Your task to perform on an android device: delete location history Image 0: 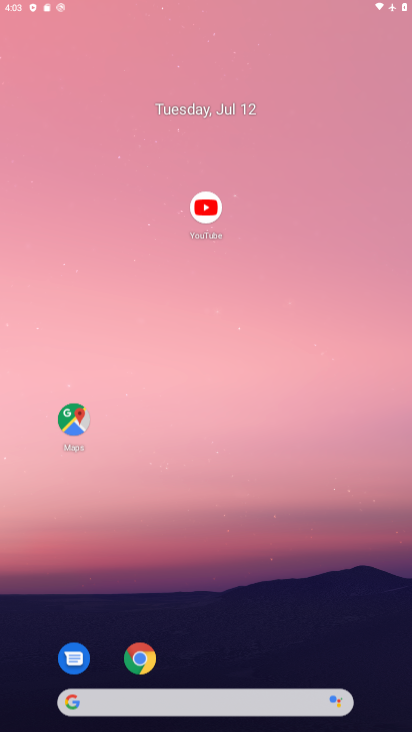
Step 0: click (131, 74)
Your task to perform on an android device: delete location history Image 1: 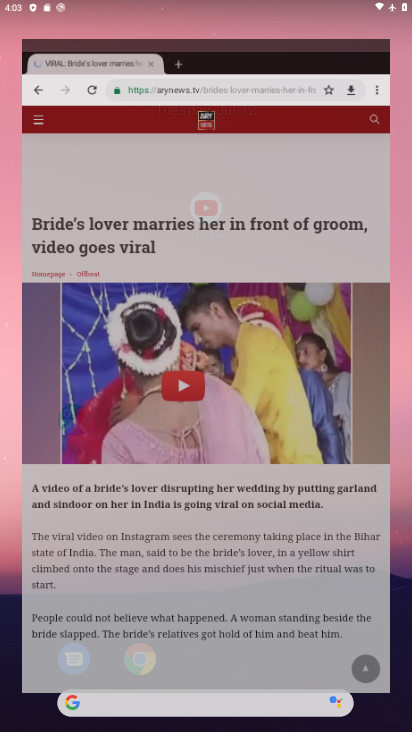
Step 1: drag from (334, 580) to (195, 0)
Your task to perform on an android device: delete location history Image 2: 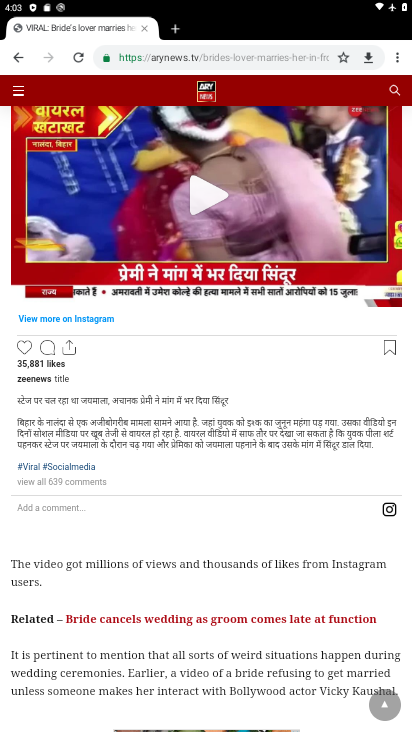
Step 2: press back button
Your task to perform on an android device: delete location history Image 3: 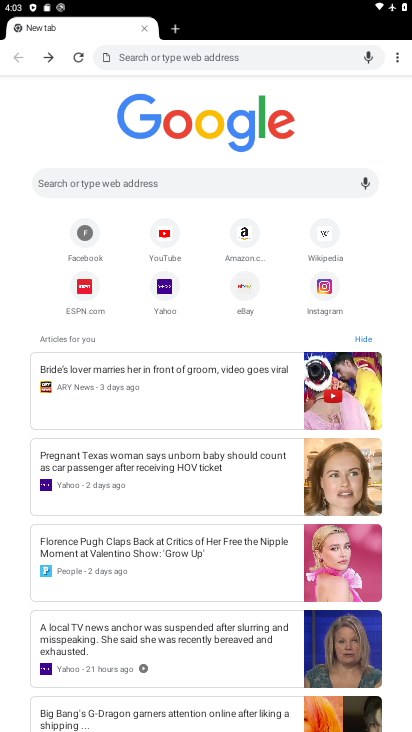
Step 3: press home button
Your task to perform on an android device: delete location history Image 4: 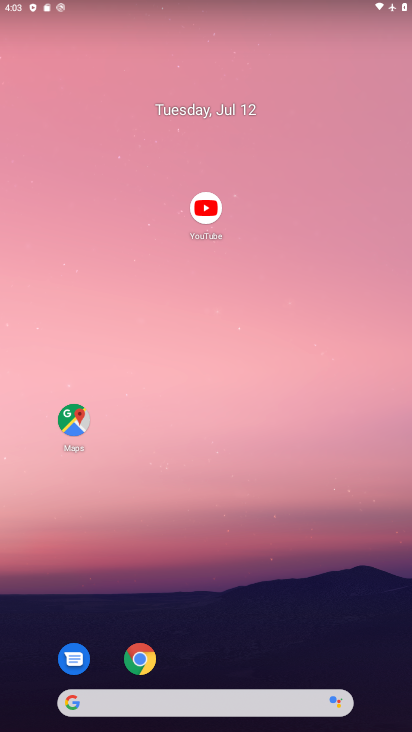
Step 4: drag from (230, 612) to (148, 92)
Your task to perform on an android device: delete location history Image 5: 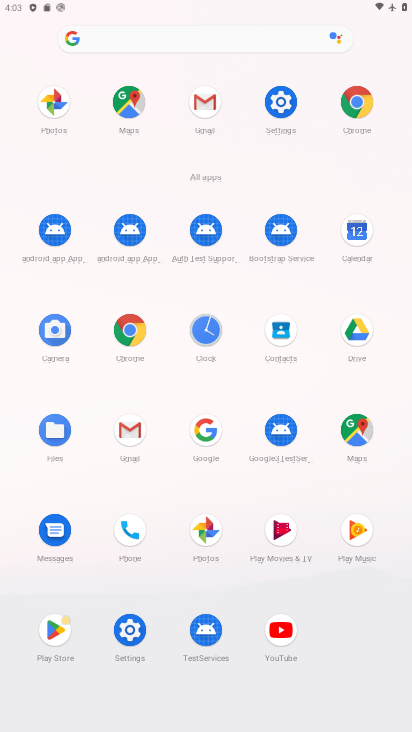
Step 5: click (130, 633)
Your task to perform on an android device: delete location history Image 6: 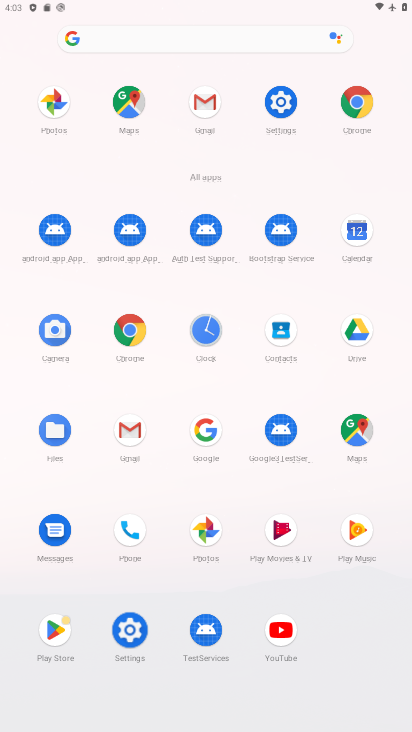
Step 6: click (130, 633)
Your task to perform on an android device: delete location history Image 7: 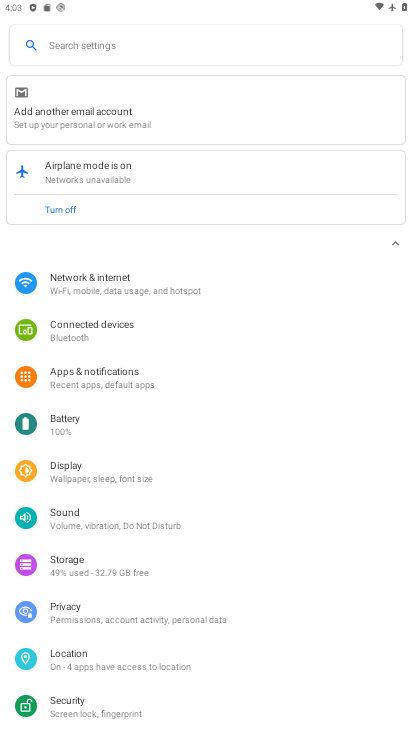
Step 7: click (82, 649)
Your task to perform on an android device: delete location history Image 8: 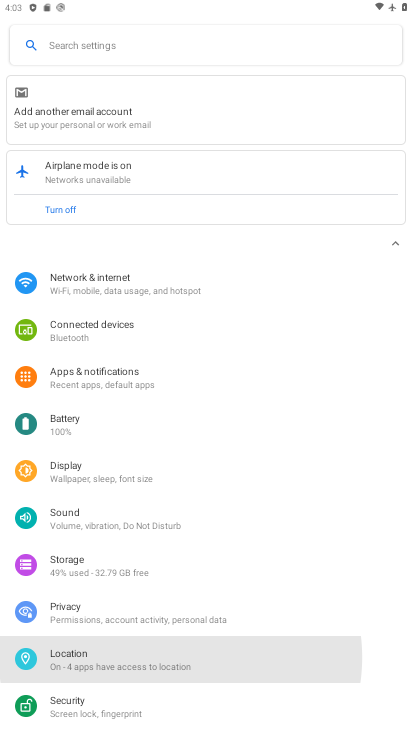
Step 8: click (81, 650)
Your task to perform on an android device: delete location history Image 9: 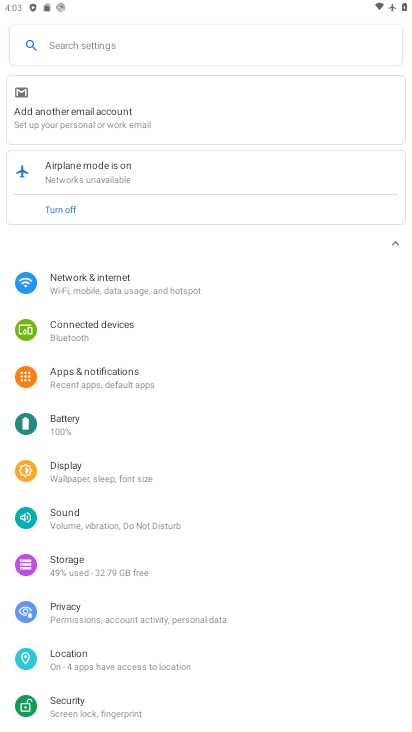
Step 9: click (81, 650)
Your task to perform on an android device: delete location history Image 10: 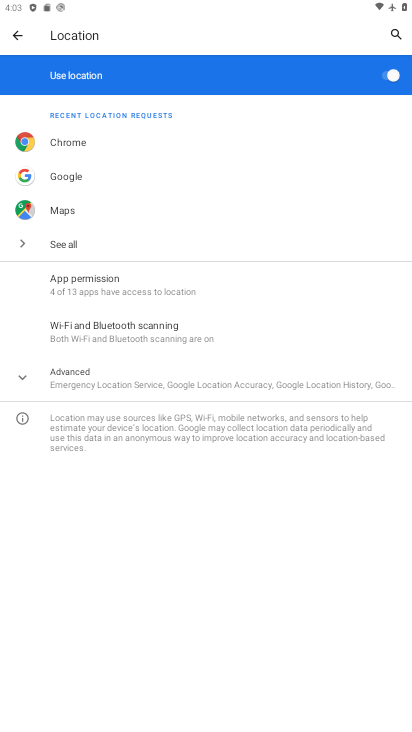
Step 10: click (68, 371)
Your task to perform on an android device: delete location history Image 11: 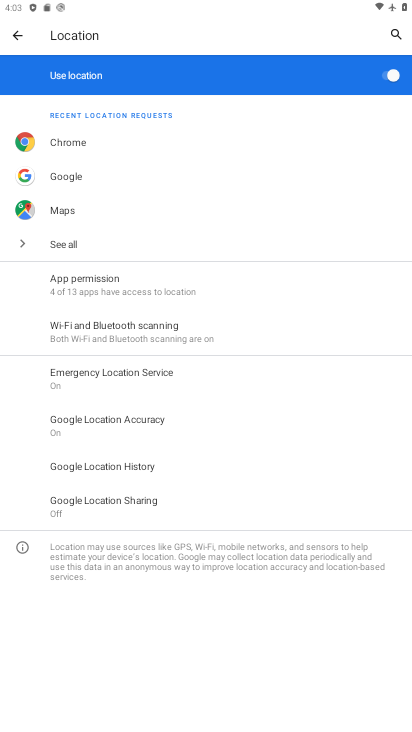
Step 11: click (111, 468)
Your task to perform on an android device: delete location history Image 12: 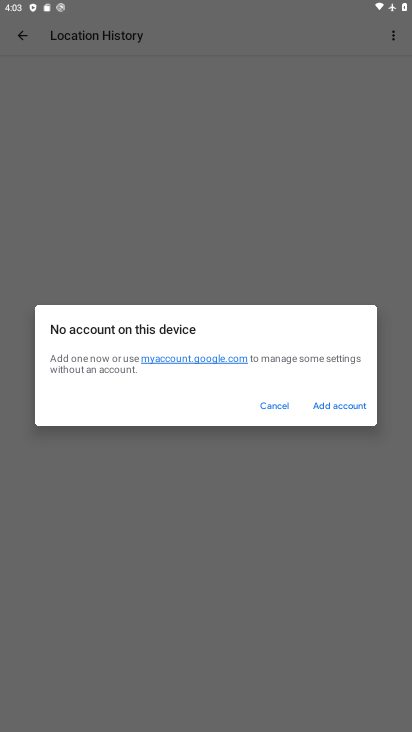
Step 12: click (272, 407)
Your task to perform on an android device: delete location history Image 13: 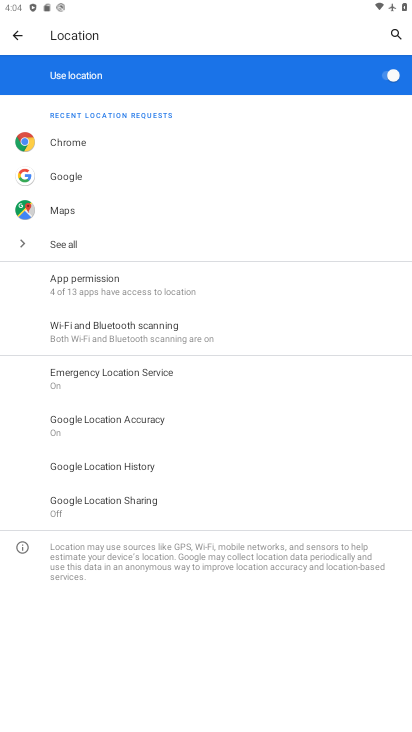
Step 13: task complete